Your task to perform on an android device: toggle show notifications on the lock screen Image 0: 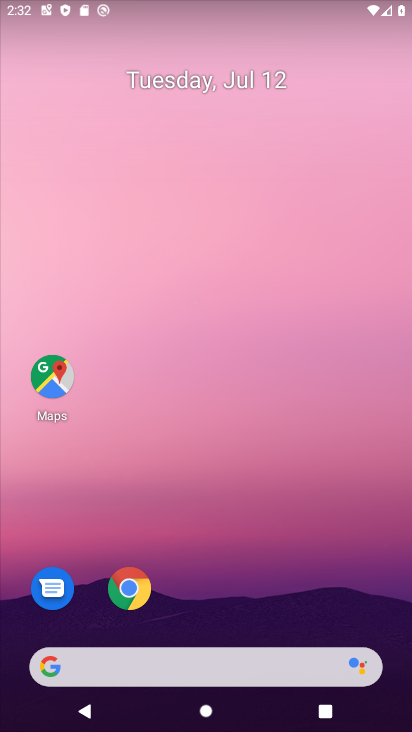
Step 0: drag from (245, 180) to (235, 12)
Your task to perform on an android device: toggle show notifications on the lock screen Image 1: 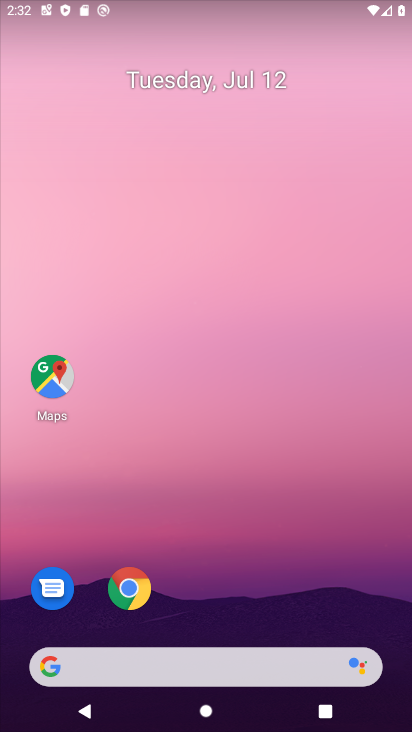
Step 1: drag from (200, 651) to (195, 15)
Your task to perform on an android device: toggle show notifications on the lock screen Image 2: 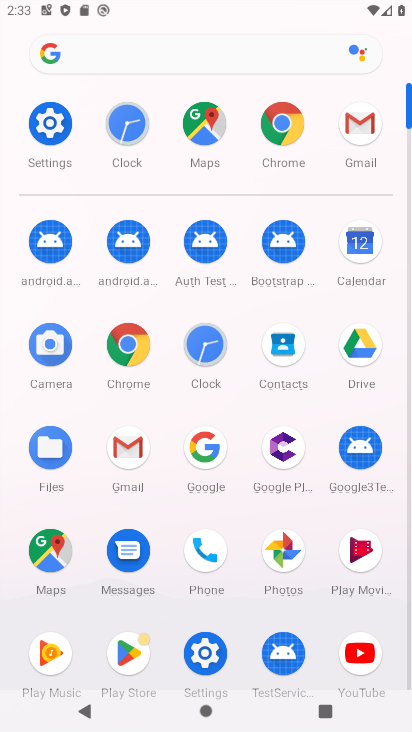
Step 2: click (36, 136)
Your task to perform on an android device: toggle show notifications on the lock screen Image 3: 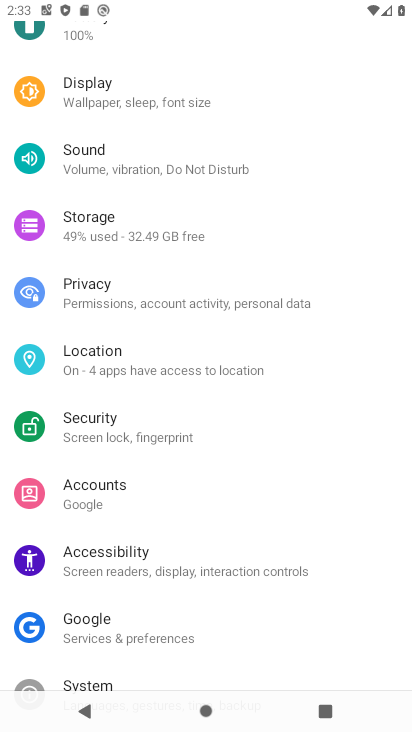
Step 3: drag from (153, 79) to (129, 490)
Your task to perform on an android device: toggle show notifications on the lock screen Image 4: 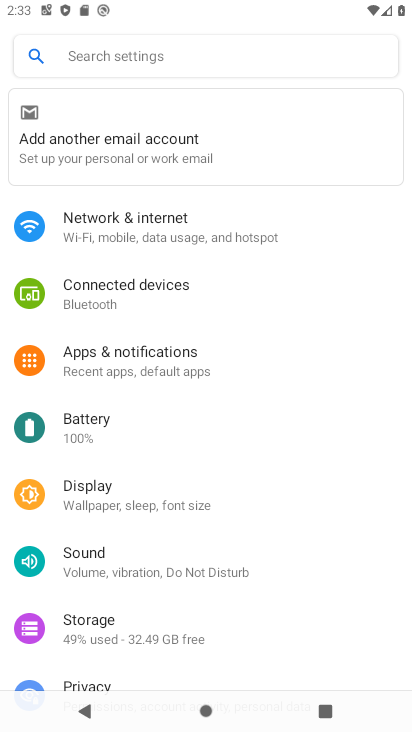
Step 4: drag from (130, 579) to (121, 196)
Your task to perform on an android device: toggle show notifications on the lock screen Image 5: 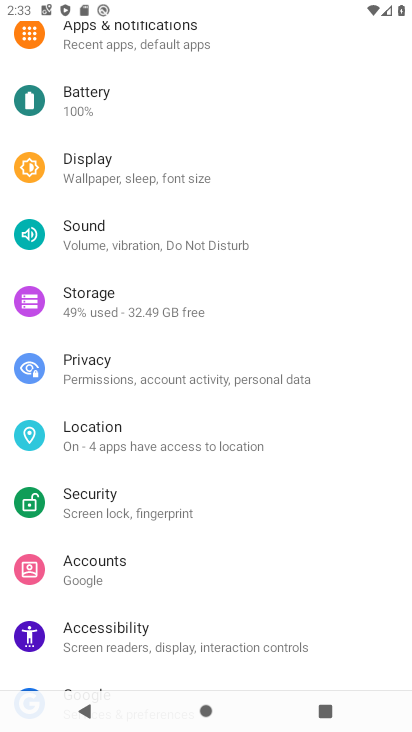
Step 5: click (118, 46)
Your task to perform on an android device: toggle show notifications on the lock screen Image 6: 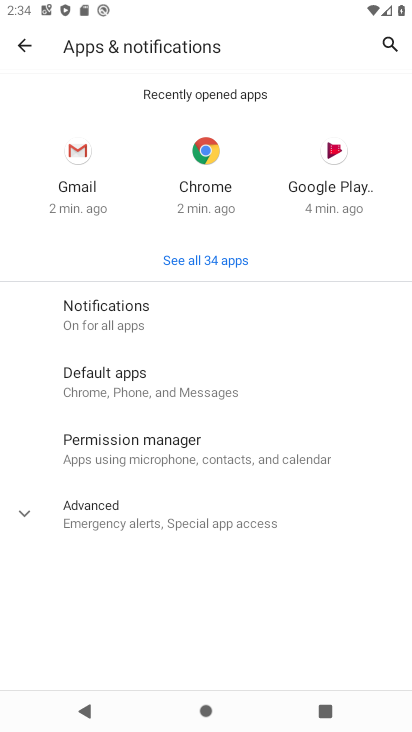
Step 6: click (134, 308)
Your task to perform on an android device: toggle show notifications on the lock screen Image 7: 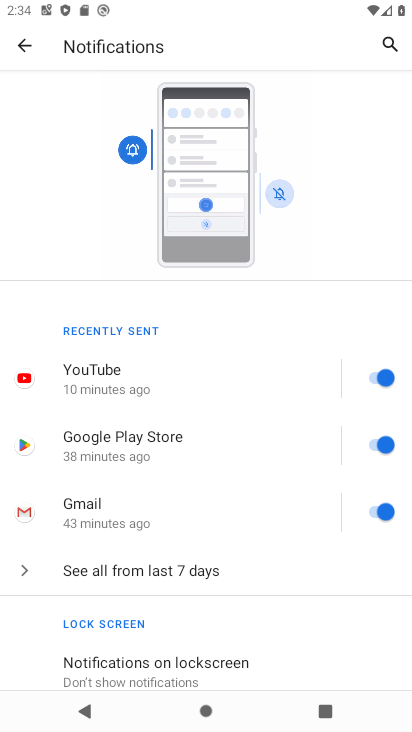
Step 7: click (176, 661)
Your task to perform on an android device: toggle show notifications on the lock screen Image 8: 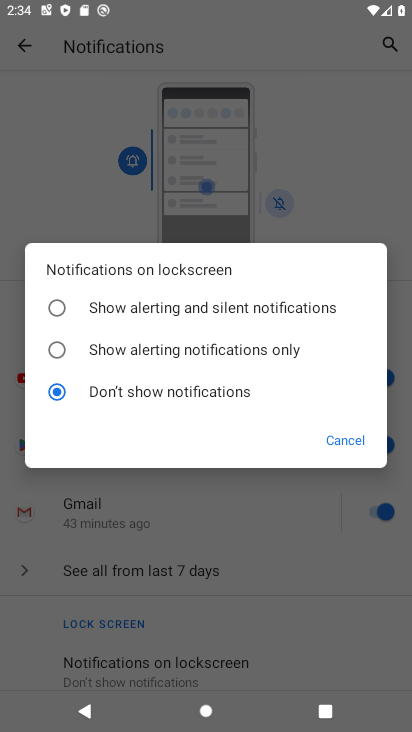
Step 8: click (132, 310)
Your task to perform on an android device: toggle show notifications on the lock screen Image 9: 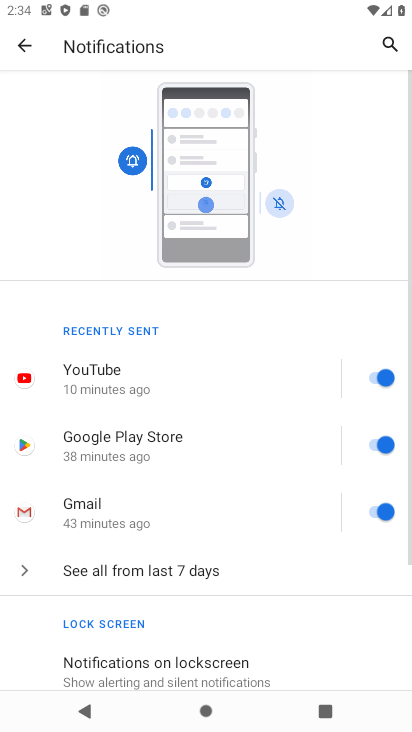
Step 9: task complete